Your task to perform on an android device: check battery use Image 0: 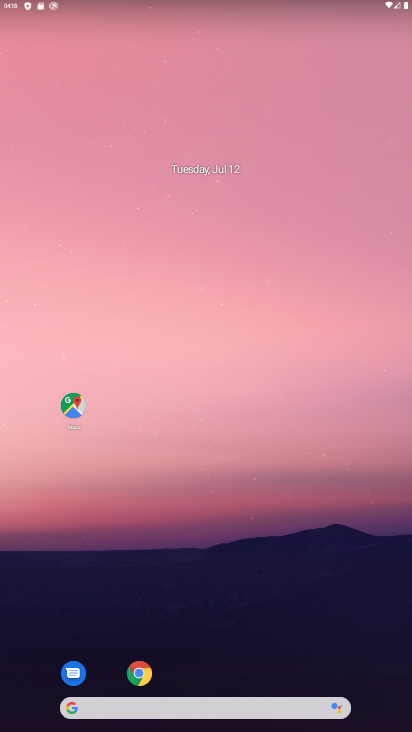
Step 0: drag from (267, 621) to (378, 7)
Your task to perform on an android device: check battery use Image 1: 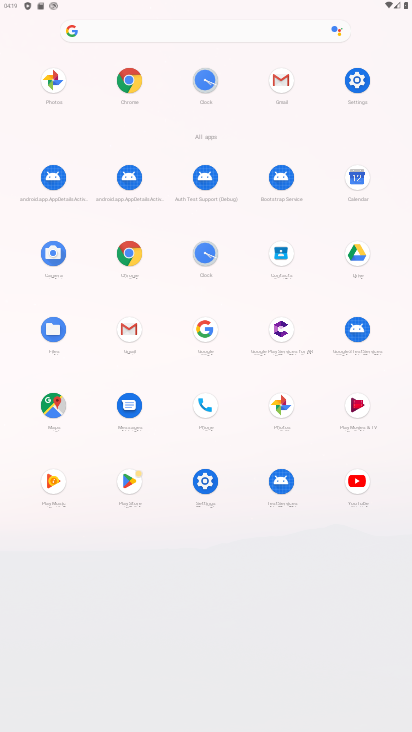
Step 1: click (358, 77)
Your task to perform on an android device: check battery use Image 2: 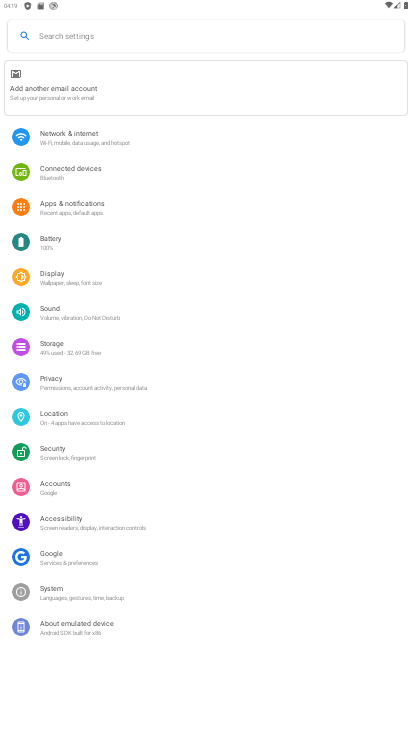
Step 2: click (43, 233)
Your task to perform on an android device: check battery use Image 3: 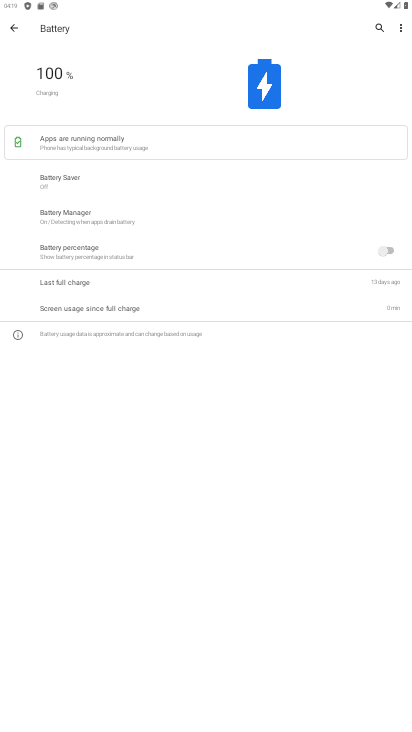
Step 3: task complete